Your task to perform on an android device: Go to internet settings Image 0: 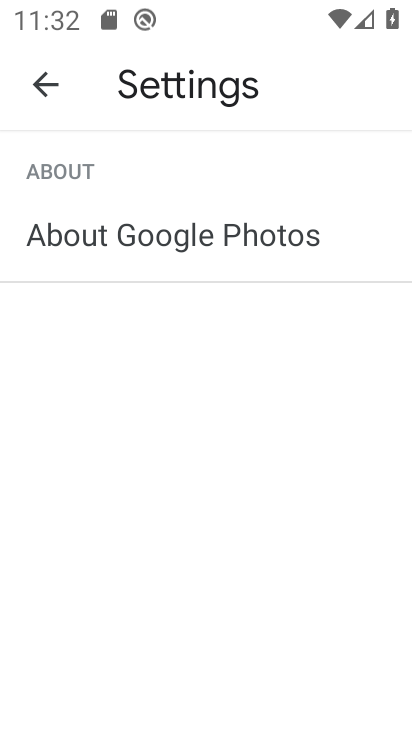
Step 0: press home button
Your task to perform on an android device: Go to internet settings Image 1: 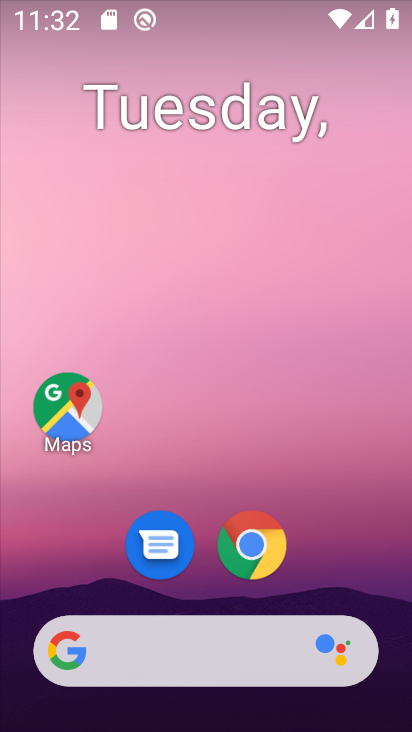
Step 1: drag from (351, 400) to (369, 105)
Your task to perform on an android device: Go to internet settings Image 2: 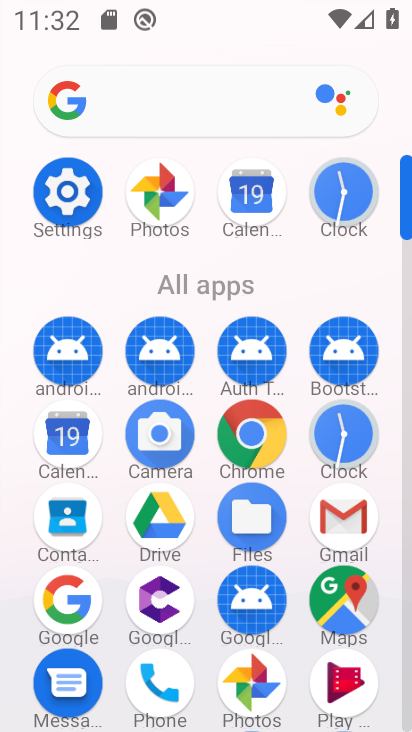
Step 2: click (75, 190)
Your task to perform on an android device: Go to internet settings Image 3: 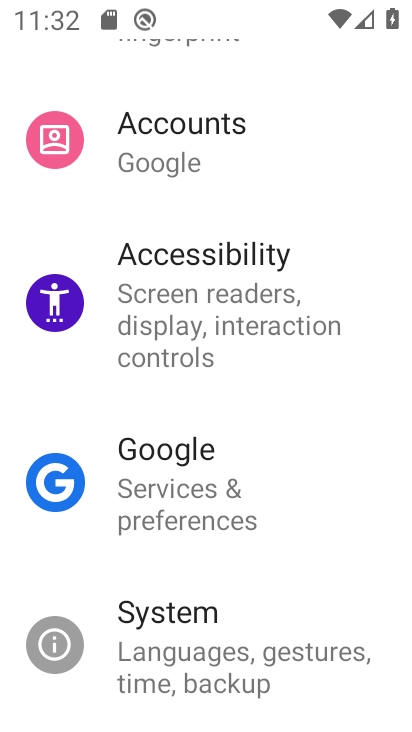
Step 3: drag from (197, 187) to (160, 622)
Your task to perform on an android device: Go to internet settings Image 4: 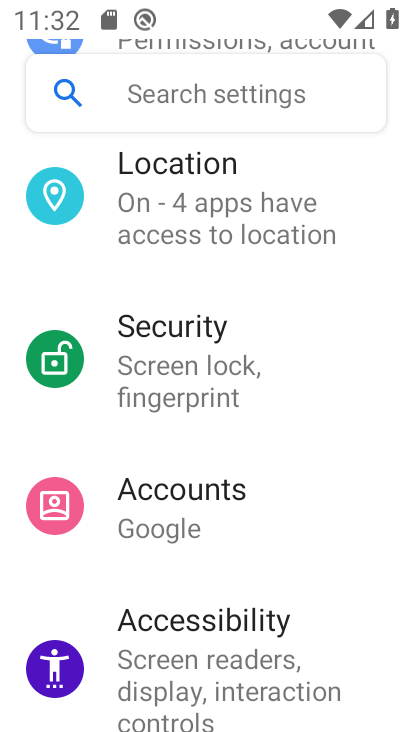
Step 4: drag from (258, 171) to (244, 648)
Your task to perform on an android device: Go to internet settings Image 5: 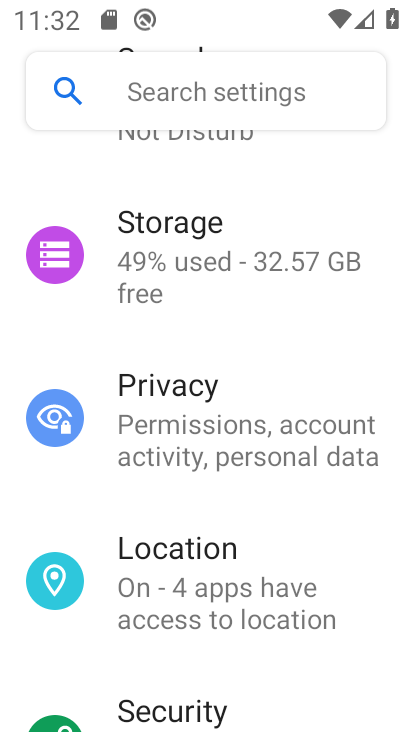
Step 5: drag from (284, 196) to (281, 661)
Your task to perform on an android device: Go to internet settings Image 6: 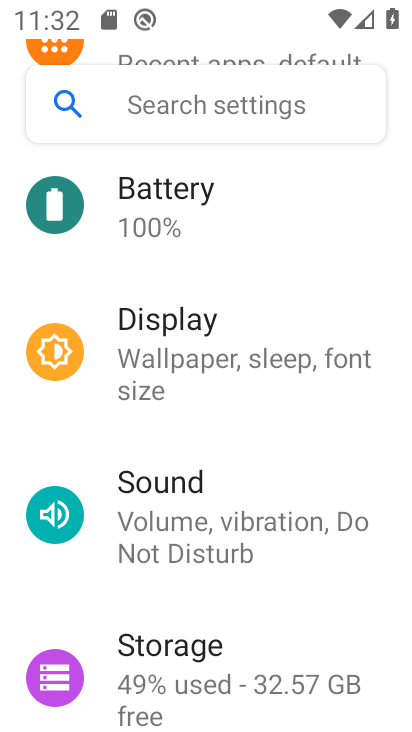
Step 6: drag from (265, 254) to (288, 644)
Your task to perform on an android device: Go to internet settings Image 7: 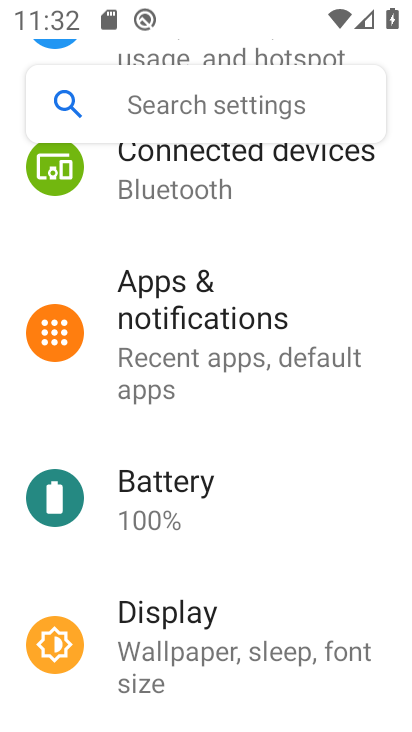
Step 7: drag from (297, 254) to (278, 635)
Your task to perform on an android device: Go to internet settings Image 8: 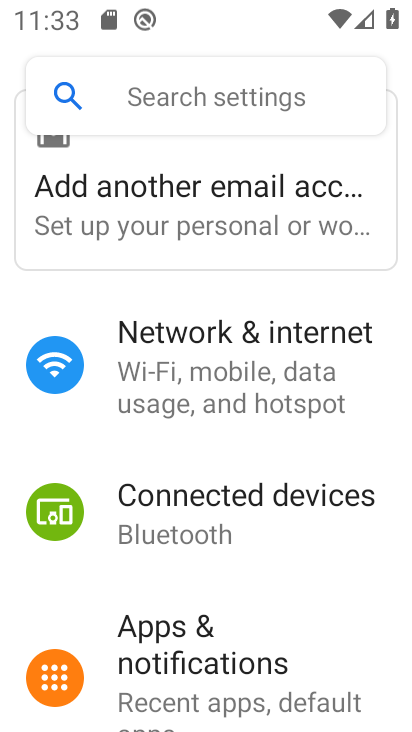
Step 8: click (268, 353)
Your task to perform on an android device: Go to internet settings Image 9: 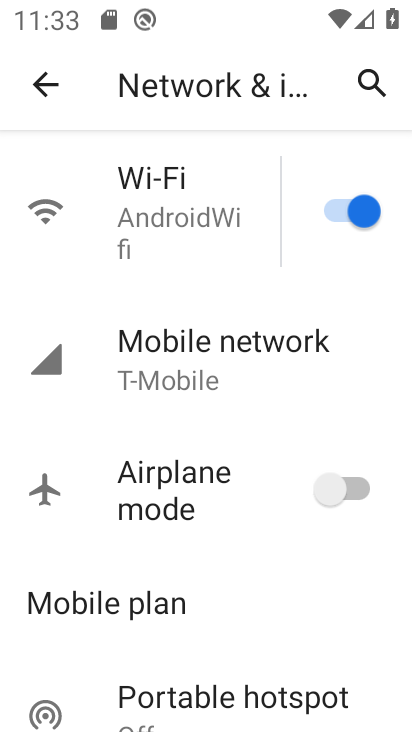
Step 9: task complete